Your task to perform on an android device: uninstall "Nova Launcher" Image 0: 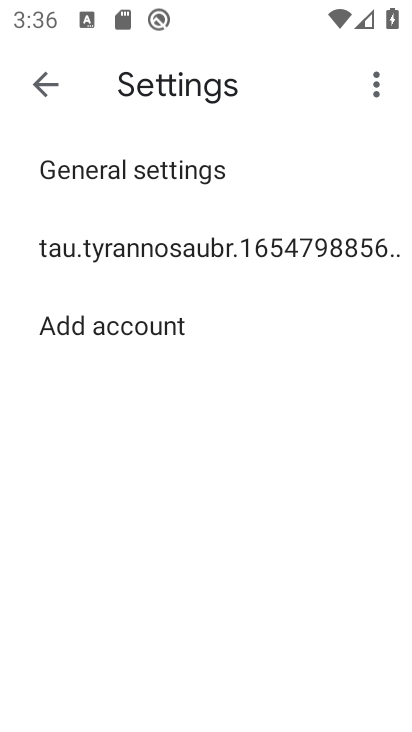
Step 0: press home button
Your task to perform on an android device: uninstall "Nova Launcher" Image 1: 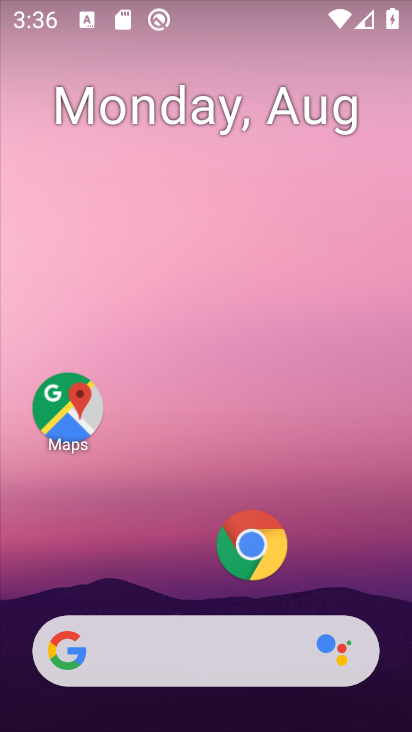
Step 1: drag from (101, 560) to (249, 10)
Your task to perform on an android device: uninstall "Nova Launcher" Image 2: 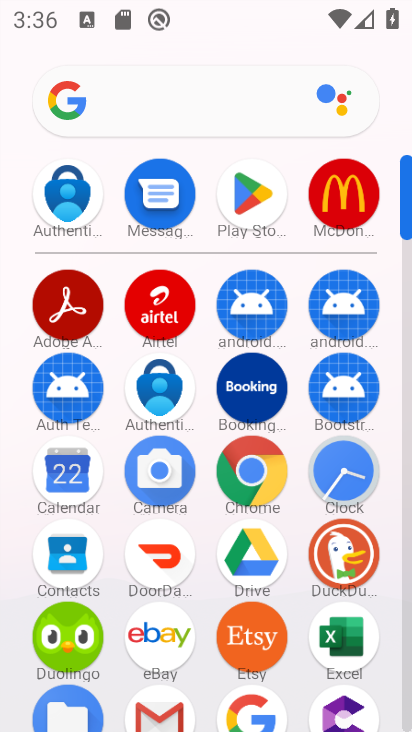
Step 2: click (255, 190)
Your task to perform on an android device: uninstall "Nova Launcher" Image 3: 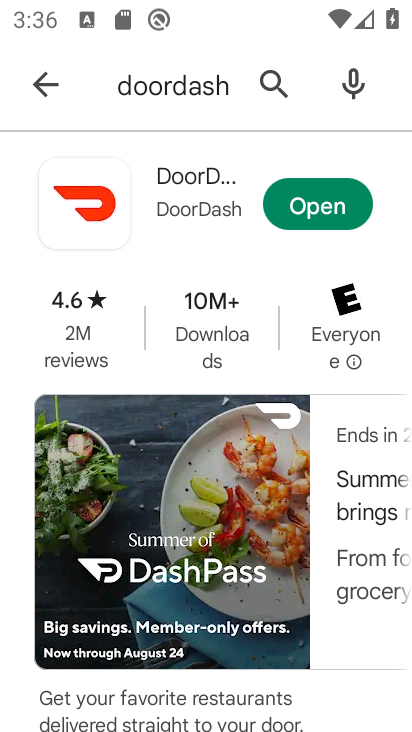
Step 3: click (275, 69)
Your task to perform on an android device: uninstall "Nova Launcher" Image 4: 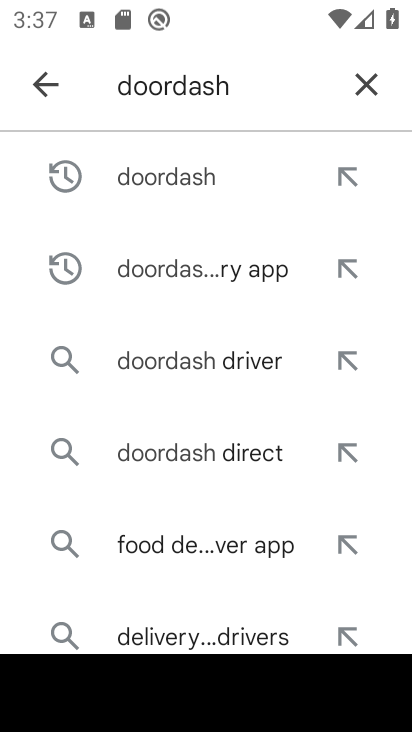
Step 4: click (378, 74)
Your task to perform on an android device: uninstall "Nova Launcher" Image 5: 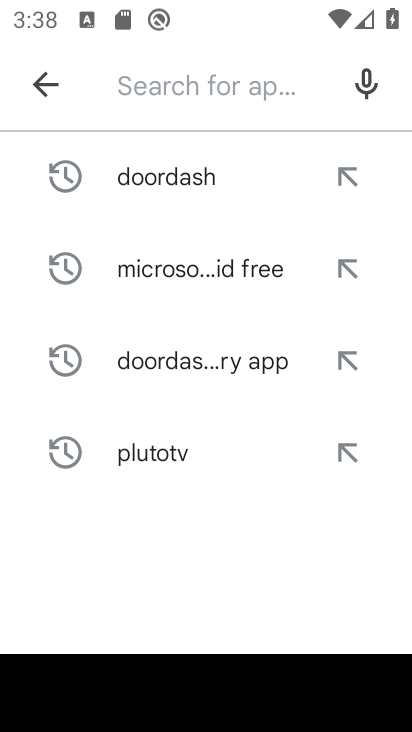
Step 5: click (152, 92)
Your task to perform on an android device: uninstall "Nova Launcher" Image 6: 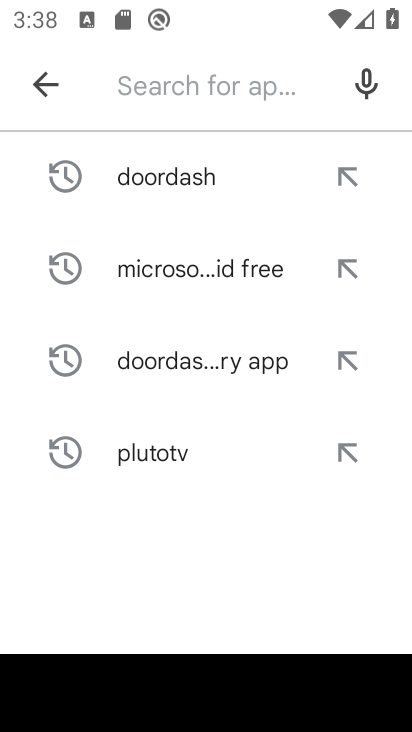
Step 6: click (151, 94)
Your task to perform on an android device: uninstall "Nova Launcher" Image 7: 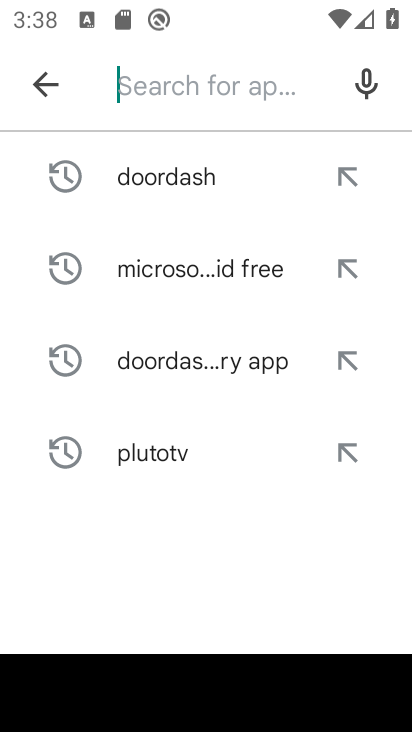
Step 7: type "Nova Launcher"
Your task to perform on an android device: uninstall "Nova Launcher" Image 8: 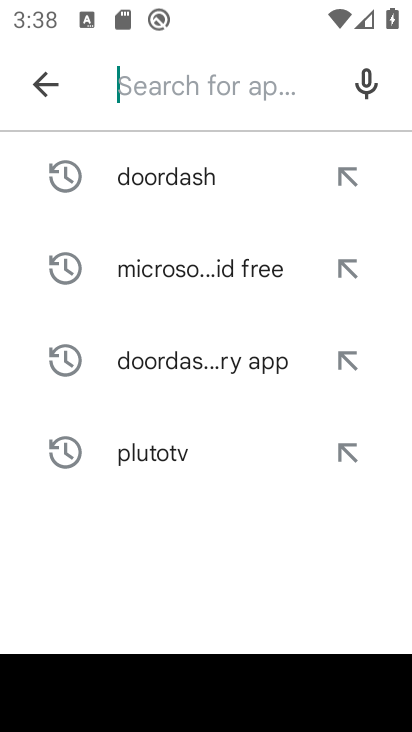
Step 8: click (168, 597)
Your task to perform on an android device: uninstall "Nova Launcher" Image 9: 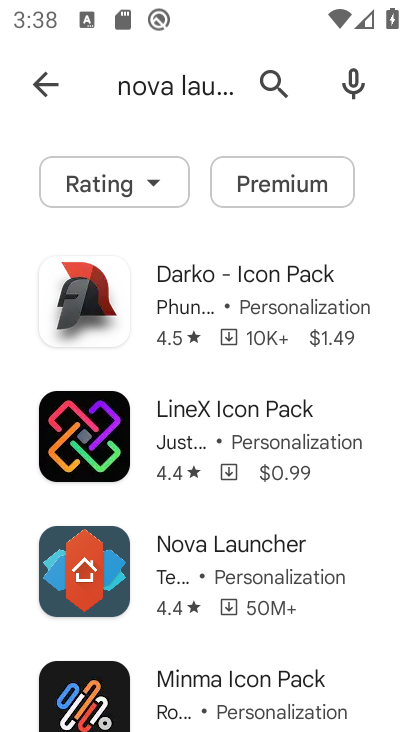
Step 9: click (142, 573)
Your task to perform on an android device: uninstall "Nova Launcher" Image 10: 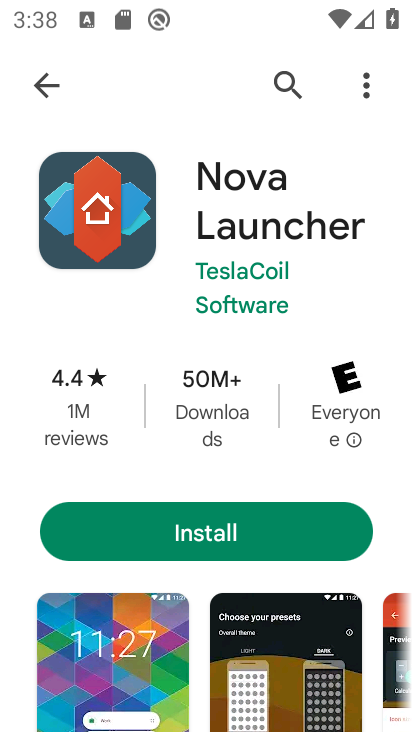
Step 10: task complete